Your task to perform on an android device: check data usage Image 0: 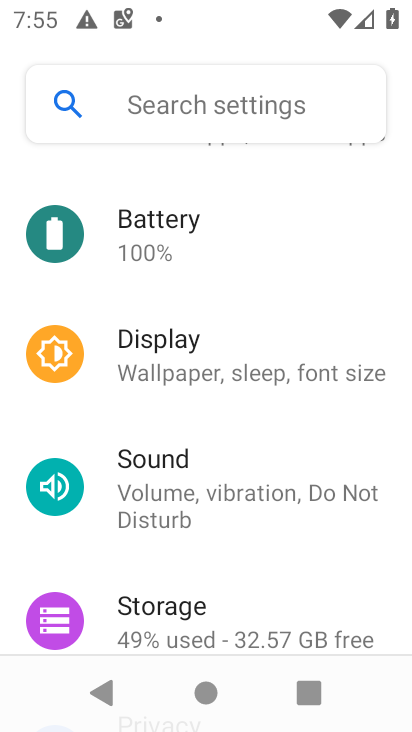
Step 0: drag from (198, 524) to (204, 261)
Your task to perform on an android device: check data usage Image 1: 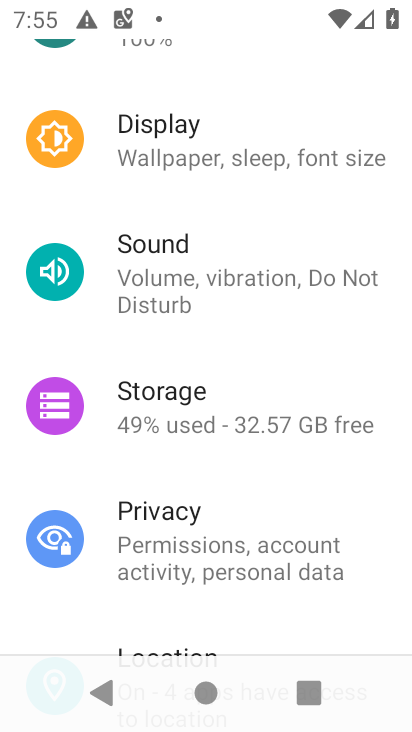
Step 1: click (191, 517)
Your task to perform on an android device: check data usage Image 2: 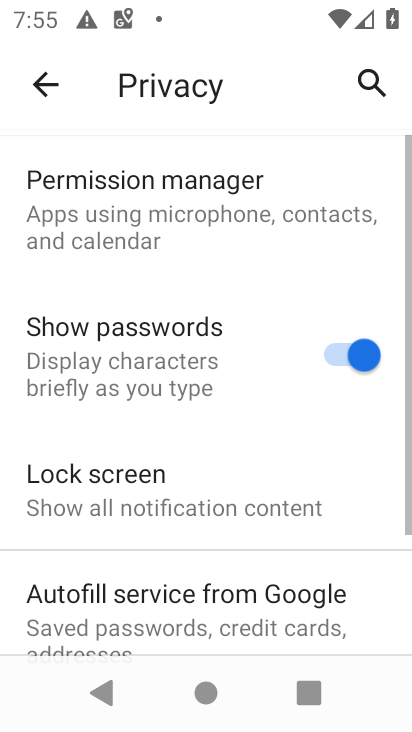
Step 2: task complete